Your task to perform on an android device: Is it going to rain this weekend? Image 0: 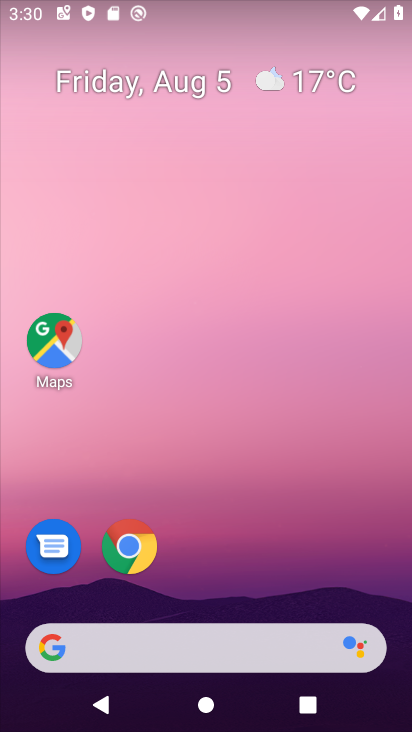
Step 0: press home button
Your task to perform on an android device: Is it going to rain this weekend? Image 1: 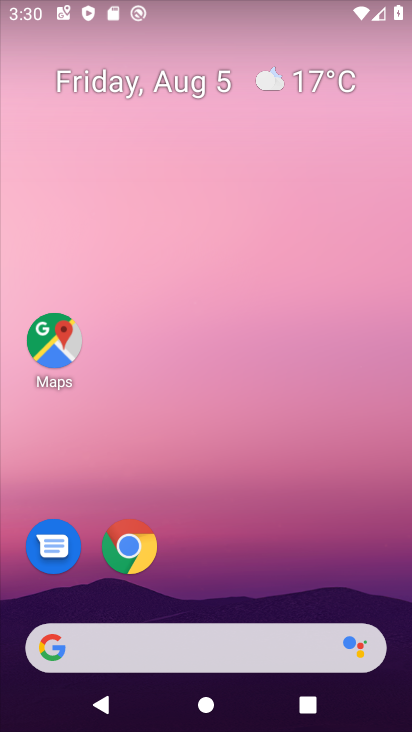
Step 1: click (243, 636)
Your task to perform on an android device: Is it going to rain this weekend? Image 2: 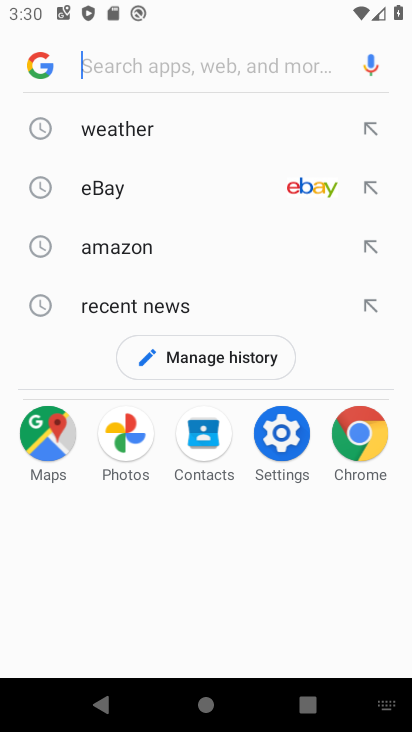
Step 2: click (139, 124)
Your task to perform on an android device: Is it going to rain this weekend? Image 3: 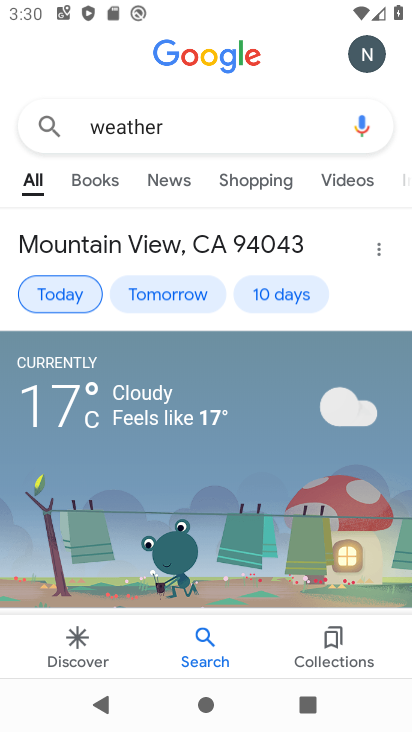
Step 3: click (286, 289)
Your task to perform on an android device: Is it going to rain this weekend? Image 4: 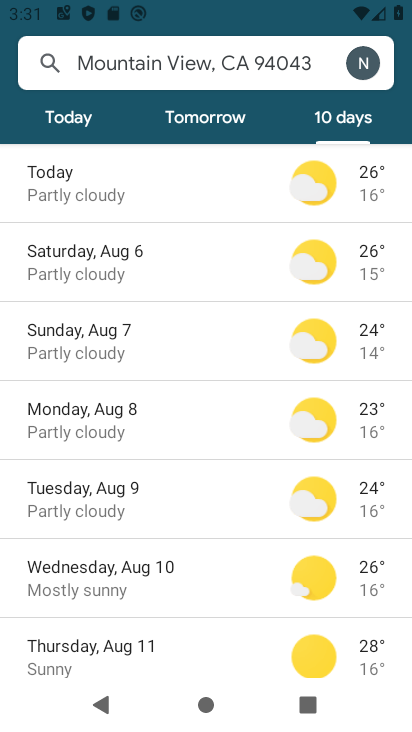
Step 4: click (180, 346)
Your task to perform on an android device: Is it going to rain this weekend? Image 5: 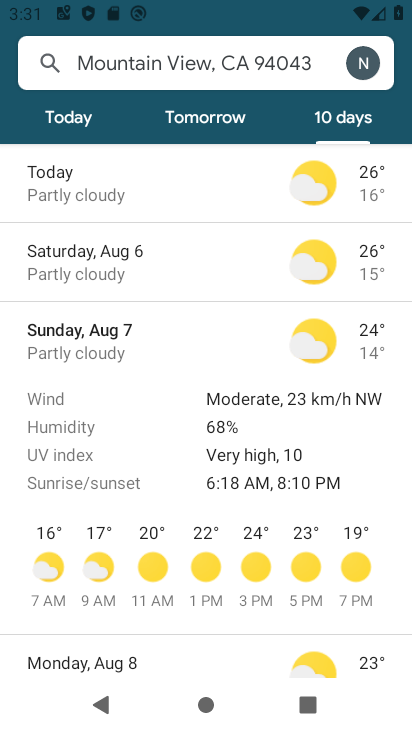
Step 5: task complete